Your task to perform on an android device: add a contact in the contacts app Image 0: 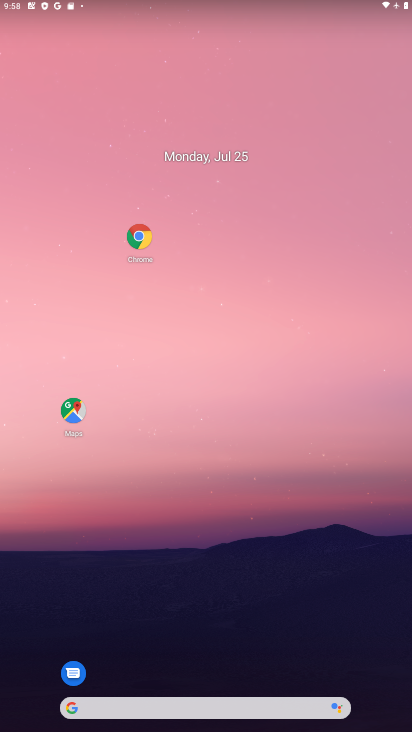
Step 0: drag from (224, 633) to (231, 247)
Your task to perform on an android device: add a contact in the contacts app Image 1: 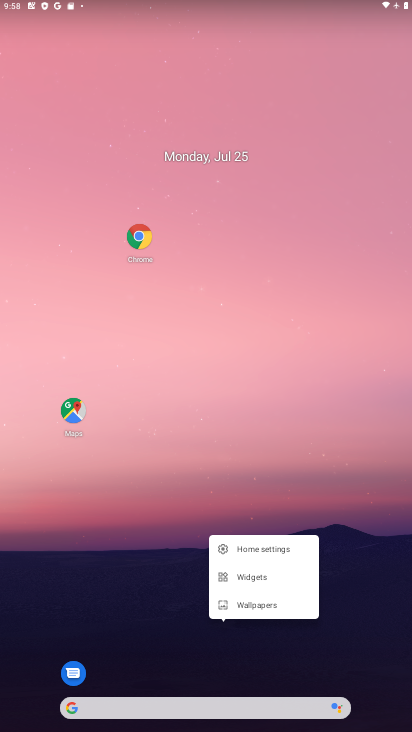
Step 1: click (231, 247)
Your task to perform on an android device: add a contact in the contacts app Image 2: 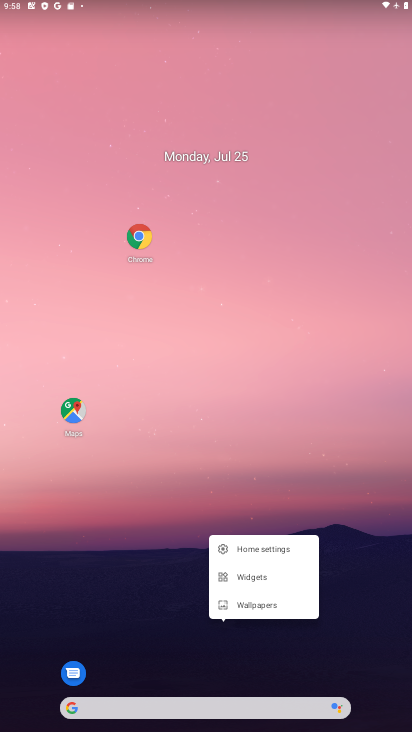
Step 2: click (231, 247)
Your task to perform on an android device: add a contact in the contacts app Image 3: 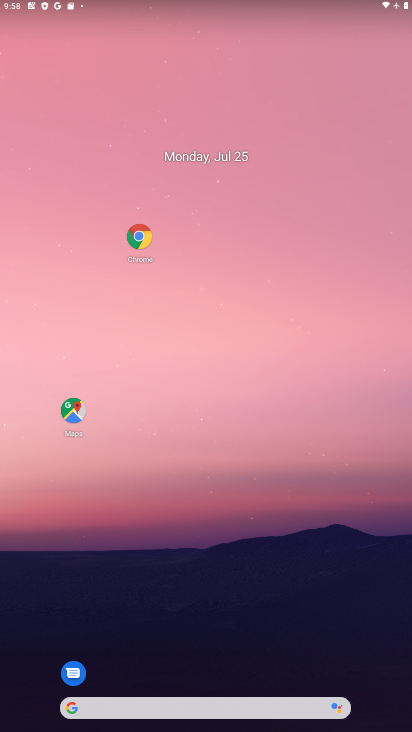
Step 3: drag from (211, 690) to (291, 0)
Your task to perform on an android device: add a contact in the contacts app Image 4: 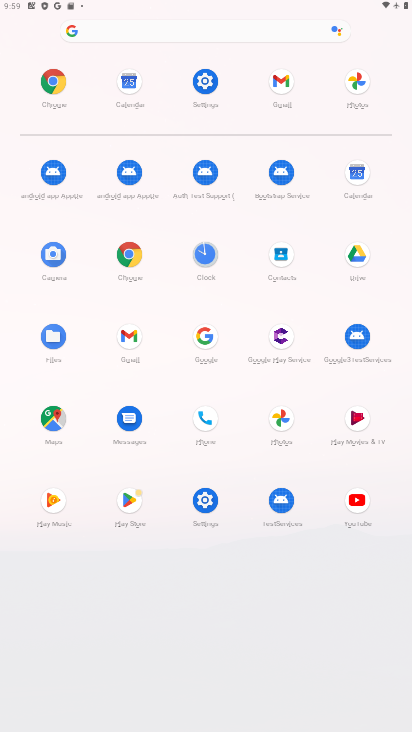
Step 4: click (134, 99)
Your task to perform on an android device: add a contact in the contacts app Image 5: 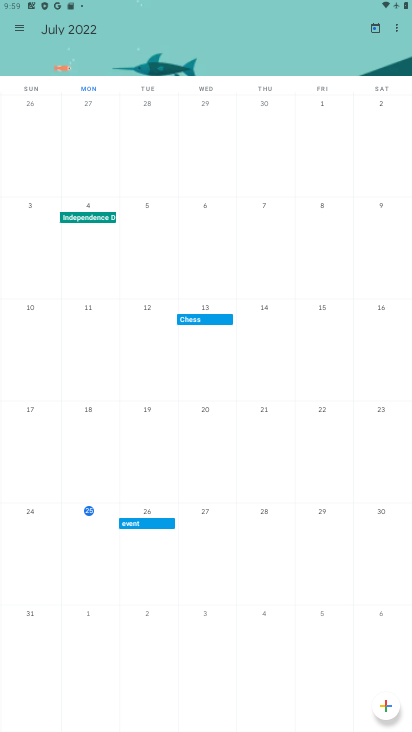
Step 5: task complete